Your task to perform on an android device: Open Reddit.com Image 0: 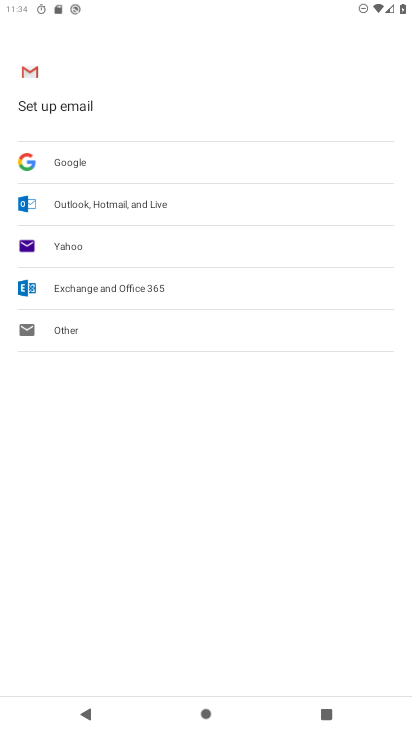
Step 0: press home button
Your task to perform on an android device: Open Reddit.com Image 1: 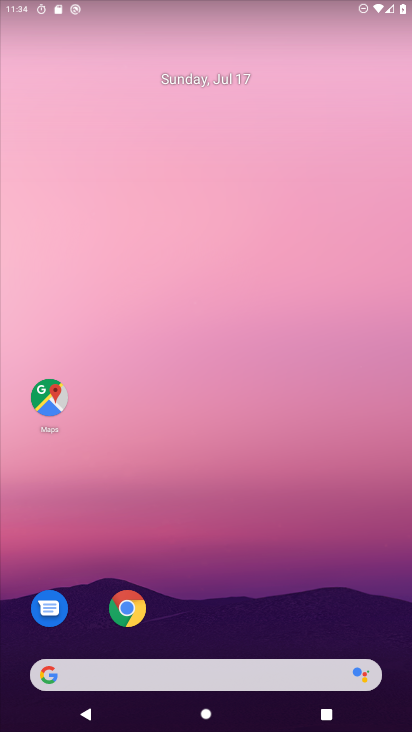
Step 1: click (135, 611)
Your task to perform on an android device: Open Reddit.com Image 2: 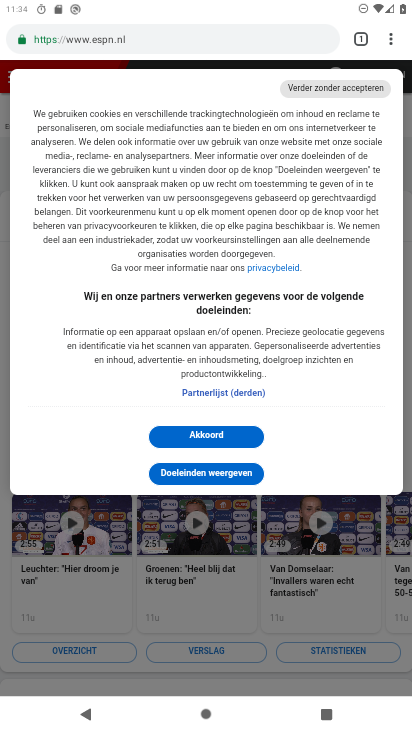
Step 2: click (93, 35)
Your task to perform on an android device: Open Reddit.com Image 3: 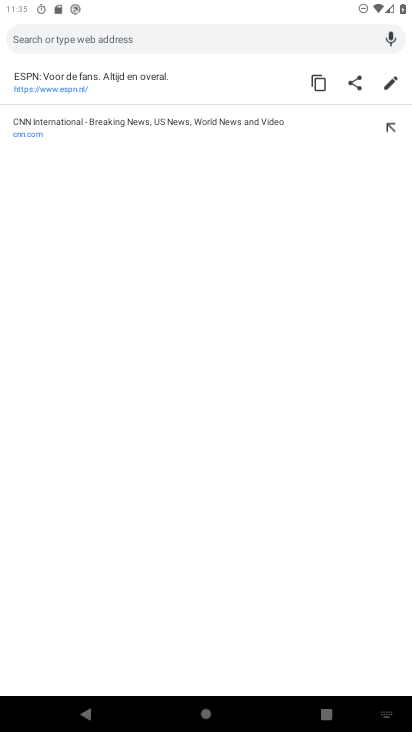
Step 3: type "Reddit.com"
Your task to perform on an android device: Open Reddit.com Image 4: 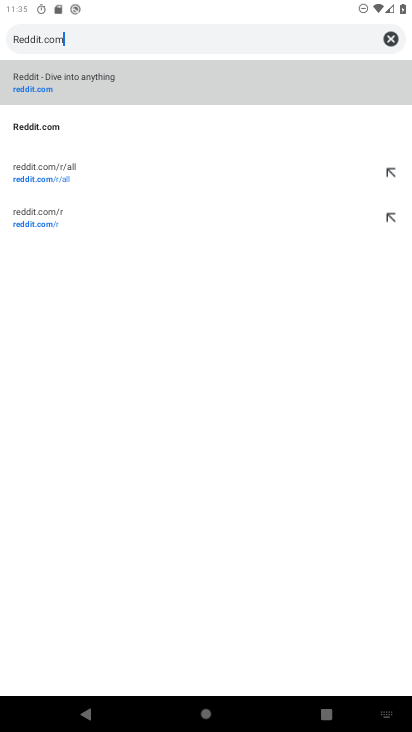
Step 4: click (102, 88)
Your task to perform on an android device: Open Reddit.com Image 5: 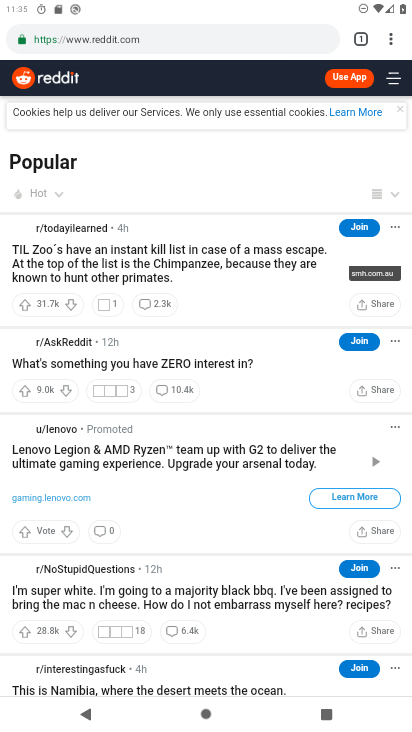
Step 5: task complete